Your task to perform on an android device: Play the last video I watched on Youtube Image 0: 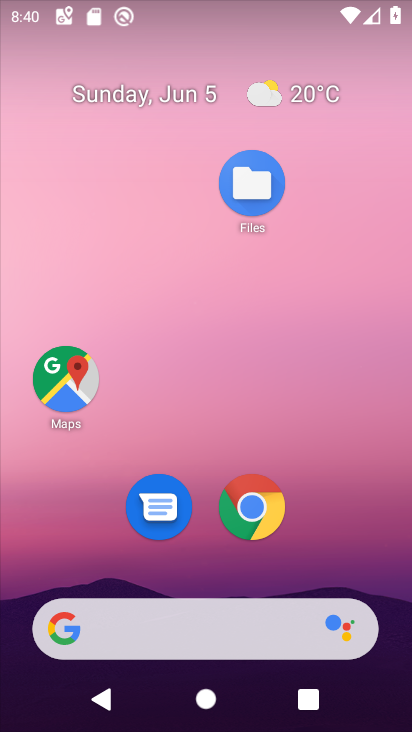
Step 0: drag from (207, 580) to (180, 152)
Your task to perform on an android device: Play the last video I watched on Youtube Image 1: 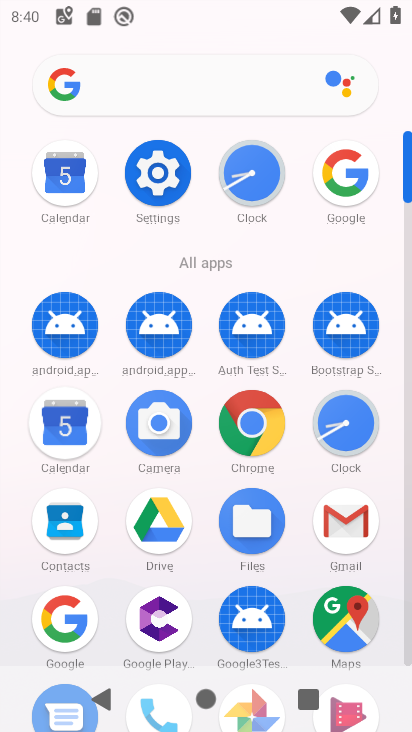
Step 1: drag from (204, 478) to (220, 69)
Your task to perform on an android device: Play the last video I watched on Youtube Image 2: 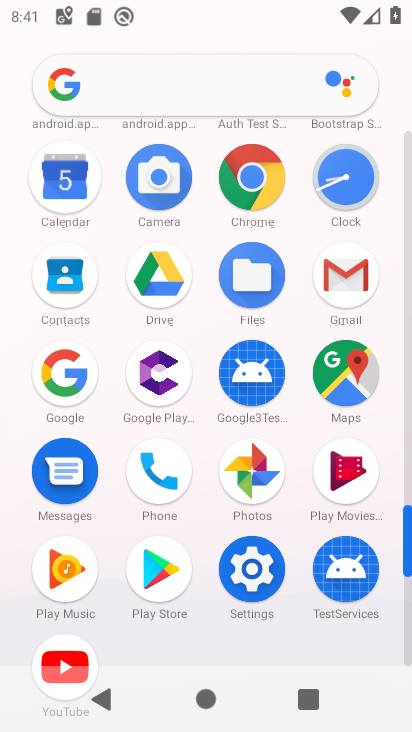
Step 2: click (54, 633)
Your task to perform on an android device: Play the last video I watched on Youtube Image 3: 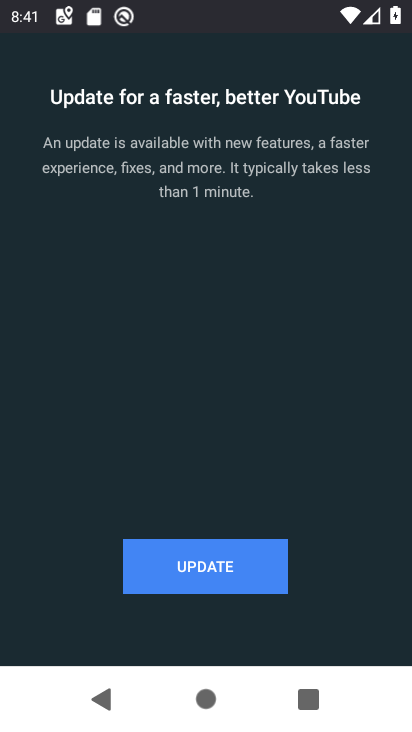
Step 3: click (147, 584)
Your task to perform on an android device: Play the last video I watched on Youtube Image 4: 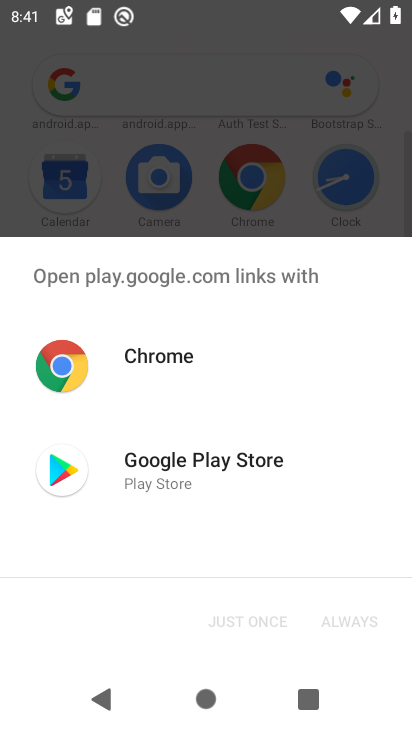
Step 4: click (191, 461)
Your task to perform on an android device: Play the last video I watched on Youtube Image 5: 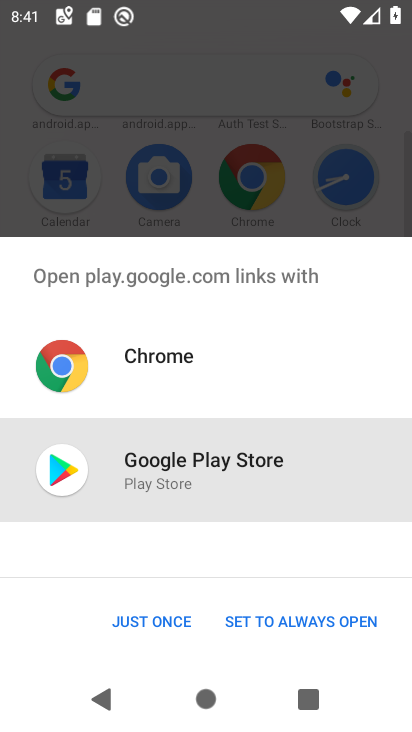
Step 5: click (153, 626)
Your task to perform on an android device: Play the last video I watched on Youtube Image 6: 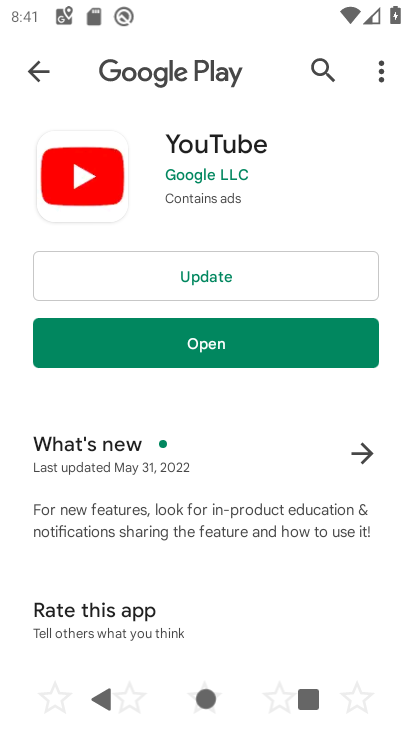
Step 6: click (173, 298)
Your task to perform on an android device: Play the last video I watched on Youtube Image 7: 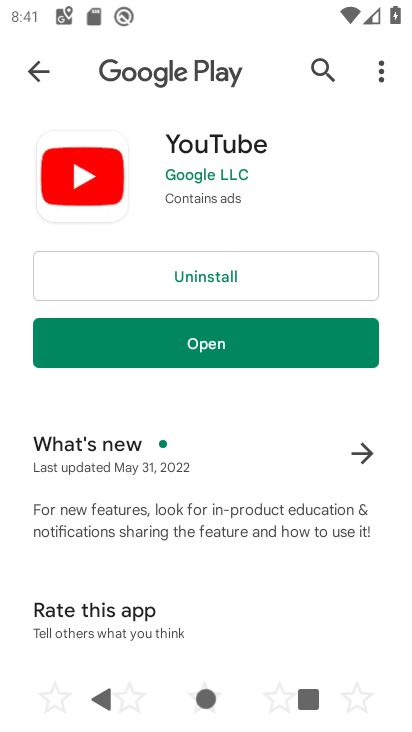
Step 7: click (312, 323)
Your task to perform on an android device: Play the last video I watched on Youtube Image 8: 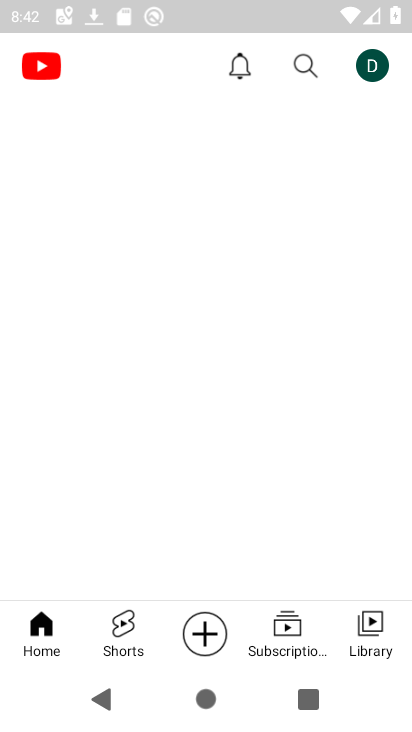
Step 8: click (361, 635)
Your task to perform on an android device: Play the last video I watched on Youtube Image 9: 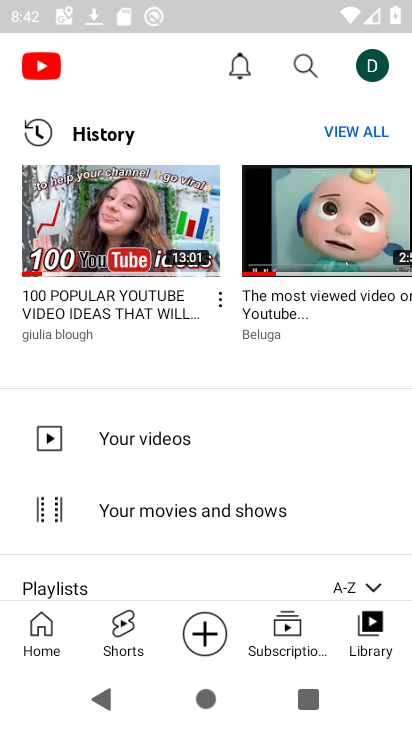
Step 9: click (118, 256)
Your task to perform on an android device: Play the last video I watched on Youtube Image 10: 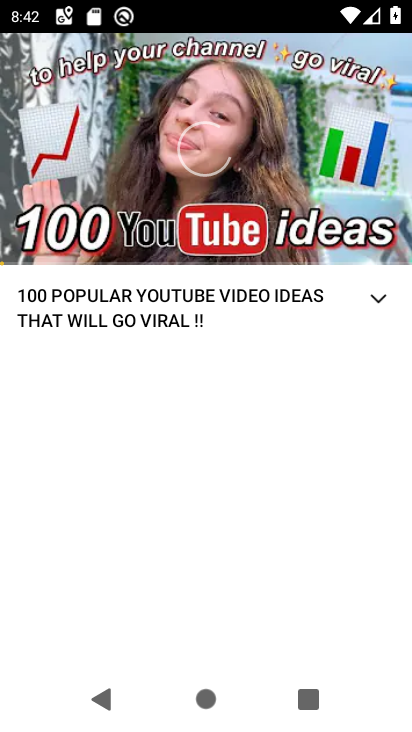
Step 10: click (223, 126)
Your task to perform on an android device: Play the last video I watched on Youtube Image 11: 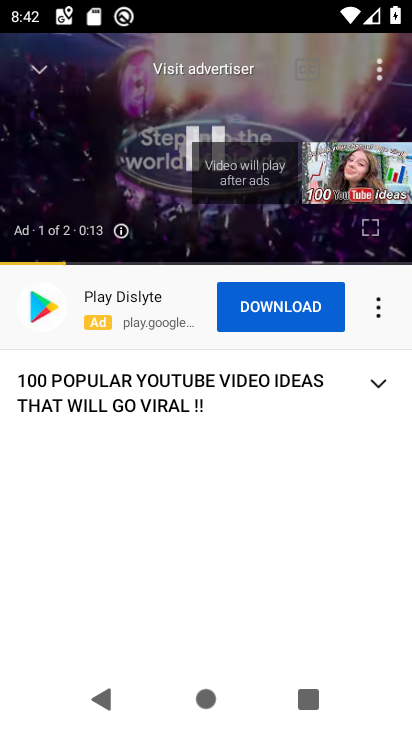
Step 11: click (214, 134)
Your task to perform on an android device: Play the last video I watched on Youtube Image 12: 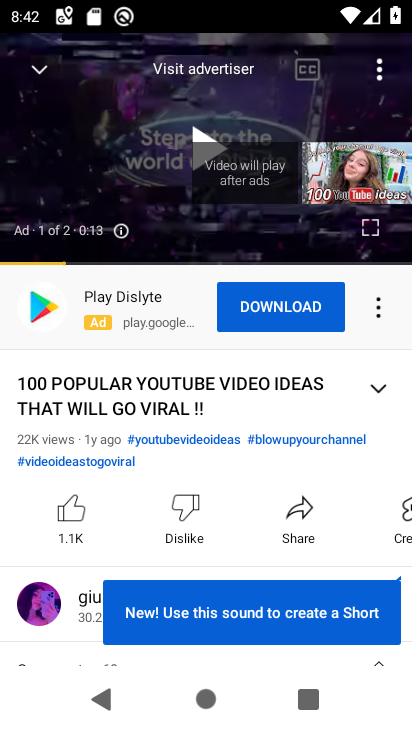
Step 12: task complete